Your task to perform on an android device: turn on the 12-hour format for clock Image 0: 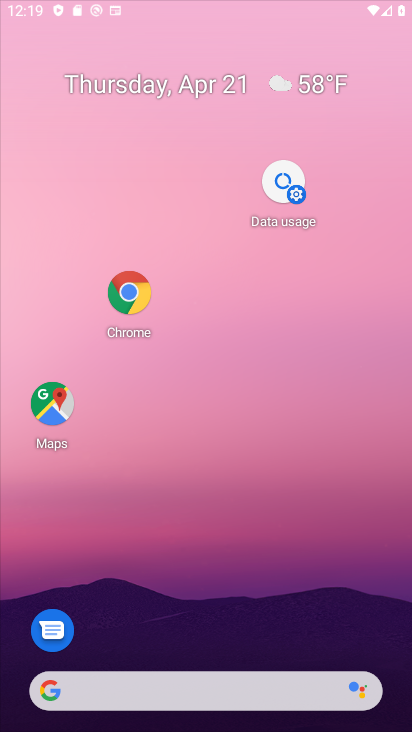
Step 0: drag from (213, 624) to (213, 245)
Your task to perform on an android device: turn on the 12-hour format for clock Image 1: 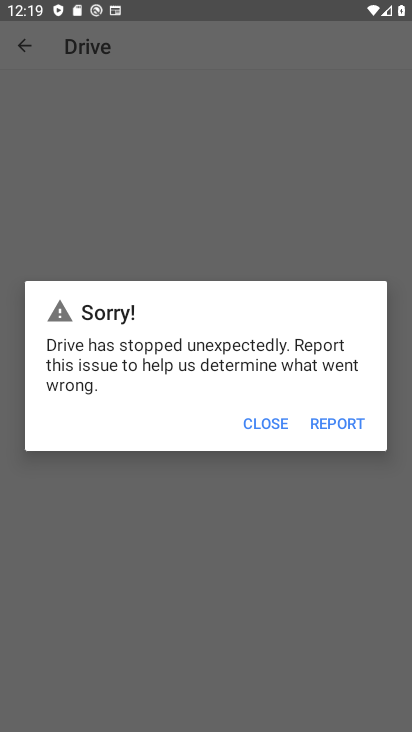
Step 1: click (262, 426)
Your task to perform on an android device: turn on the 12-hour format for clock Image 2: 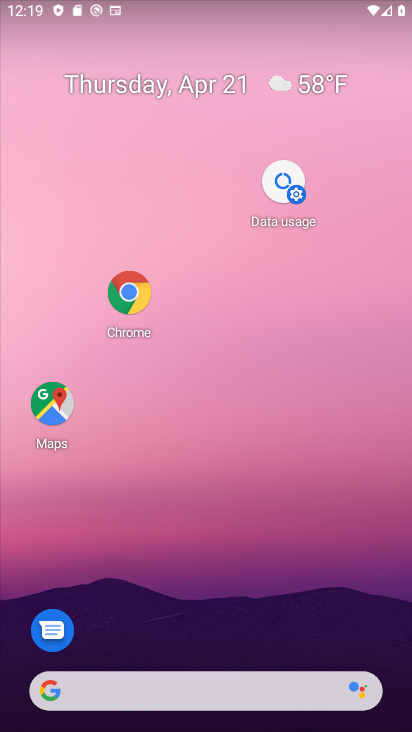
Step 2: drag from (180, 629) to (130, 217)
Your task to perform on an android device: turn on the 12-hour format for clock Image 3: 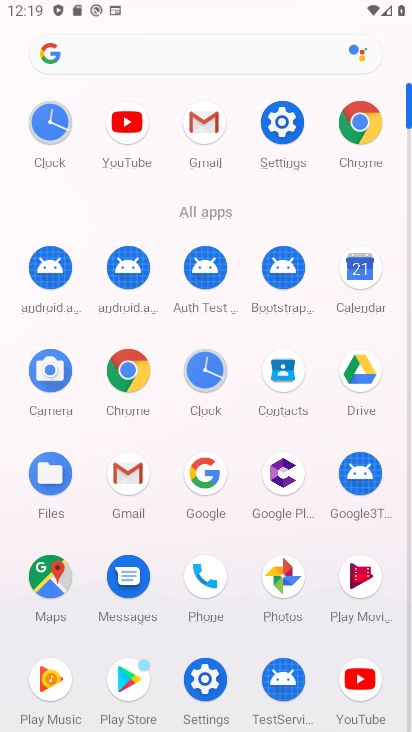
Step 3: click (50, 117)
Your task to perform on an android device: turn on the 12-hour format for clock Image 4: 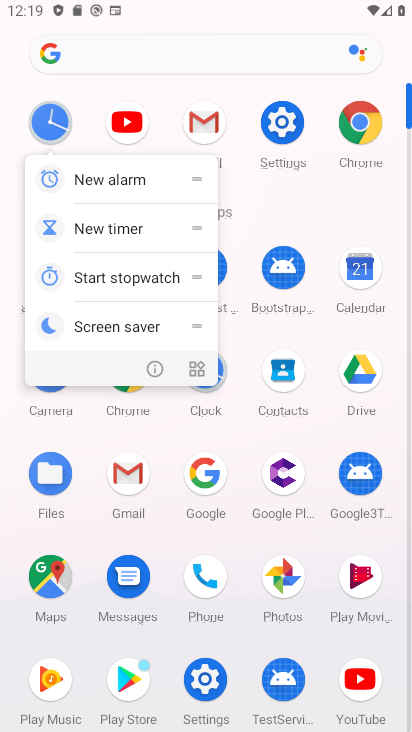
Step 4: click (45, 124)
Your task to perform on an android device: turn on the 12-hour format for clock Image 5: 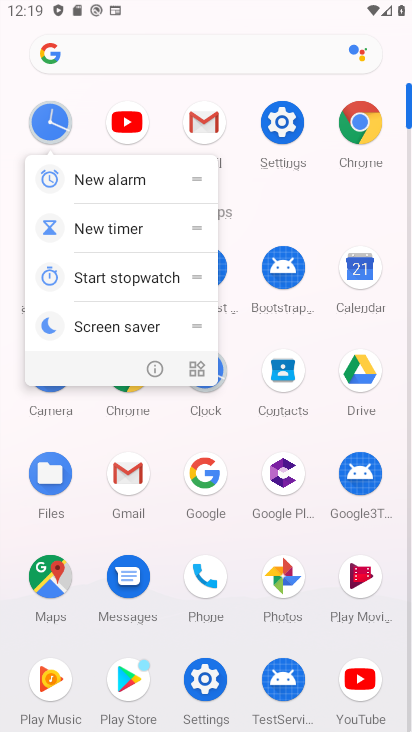
Step 5: click (56, 135)
Your task to perform on an android device: turn on the 12-hour format for clock Image 6: 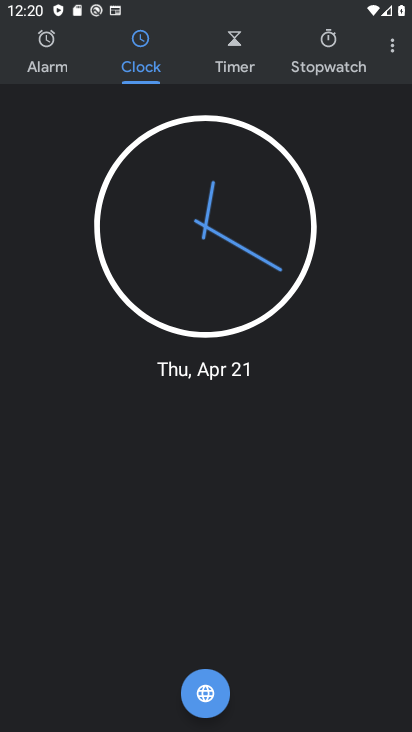
Step 6: click (392, 46)
Your task to perform on an android device: turn on the 12-hour format for clock Image 7: 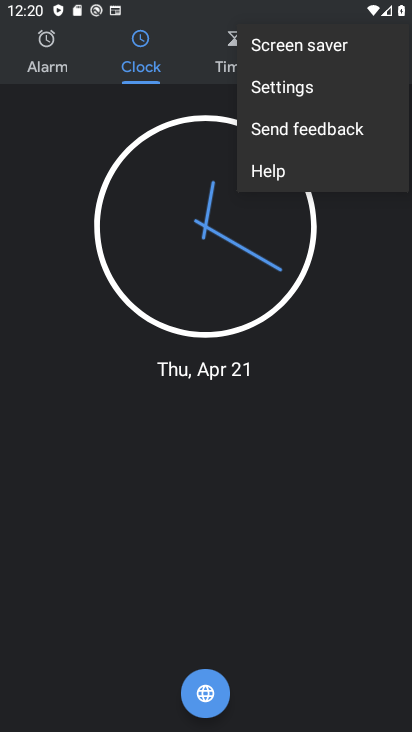
Step 7: click (294, 85)
Your task to perform on an android device: turn on the 12-hour format for clock Image 8: 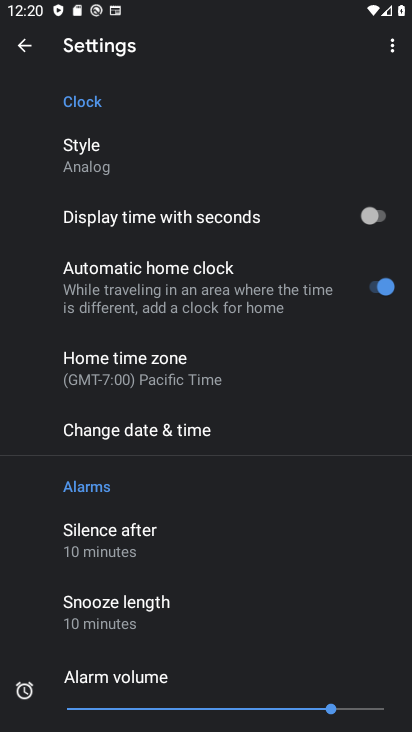
Step 8: click (141, 431)
Your task to perform on an android device: turn on the 12-hour format for clock Image 9: 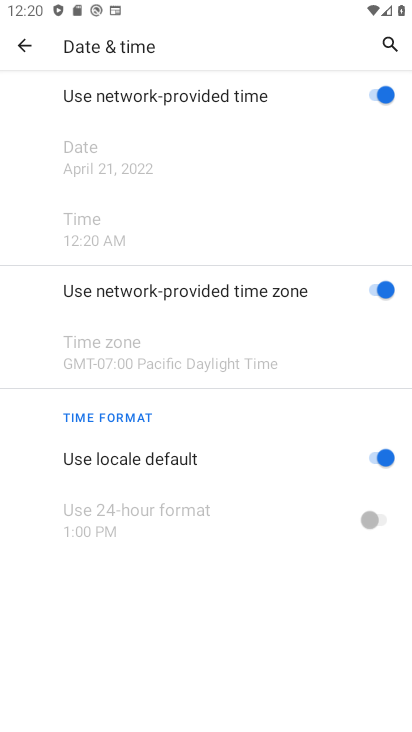
Step 9: task complete